Your task to perform on an android device: turn on the 24-hour format for clock Image 0: 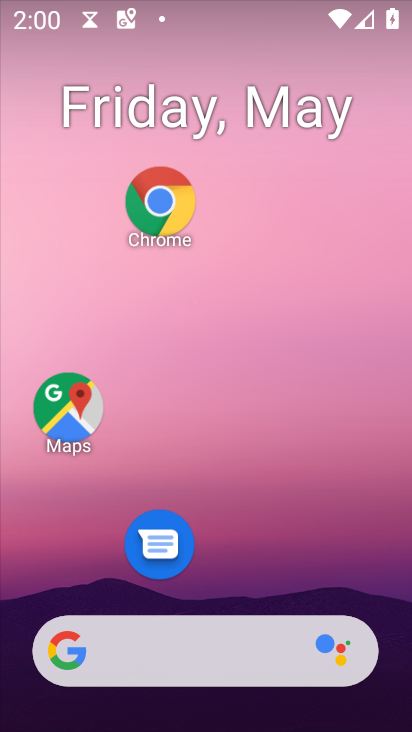
Step 0: drag from (311, 573) to (285, 132)
Your task to perform on an android device: turn on the 24-hour format for clock Image 1: 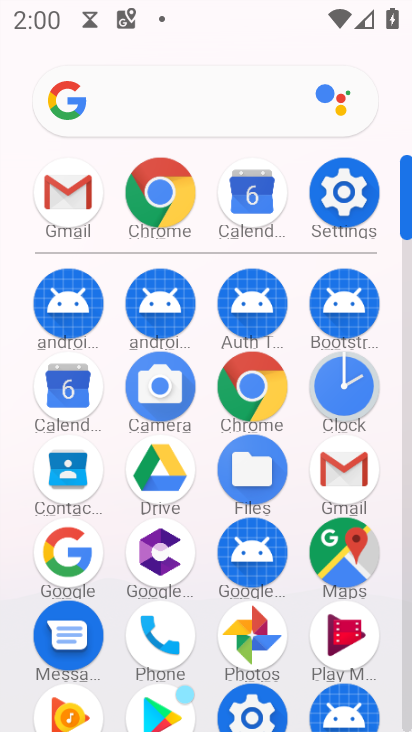
Step 1: click (355, 392)
Your task to perform on an android device: turn on the 24-hour format for clock Image 2: 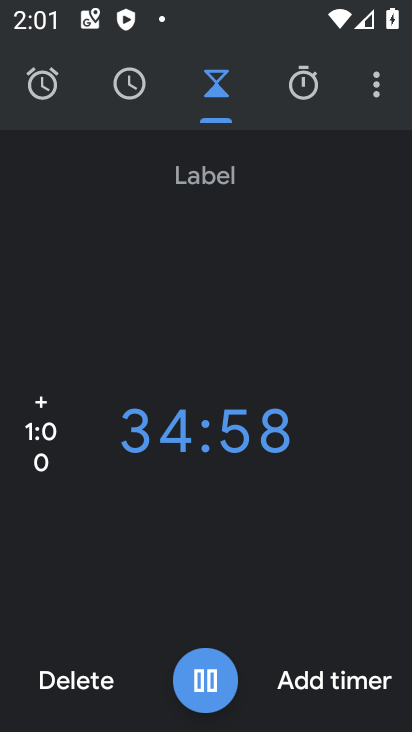
Step 2: click (379, 83)
Your task to perform on an android device: turn on the 24-hour format for clock Image 3: 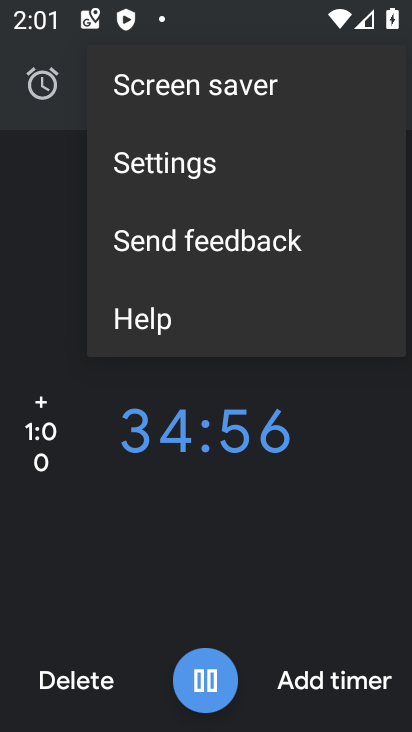
Step 3: click (204, 180)
Your task to perform on an android device: turn on the 24-hour format for clock Image 4: 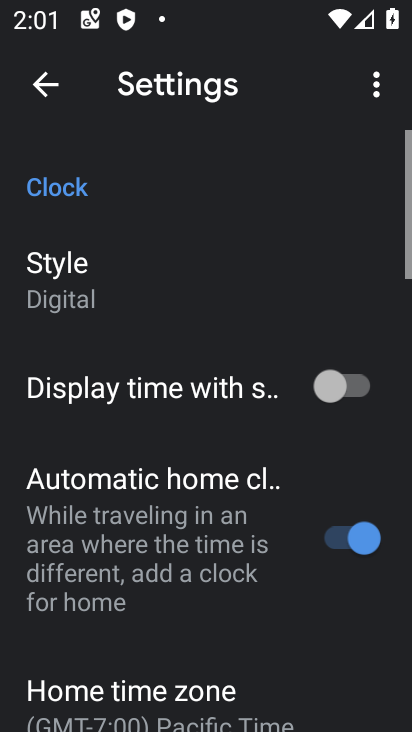
Step 4: drag from (223, 487) to (214, 224)
Your task to perform on an android device: turn on the 24-hour format for clock Image 5: 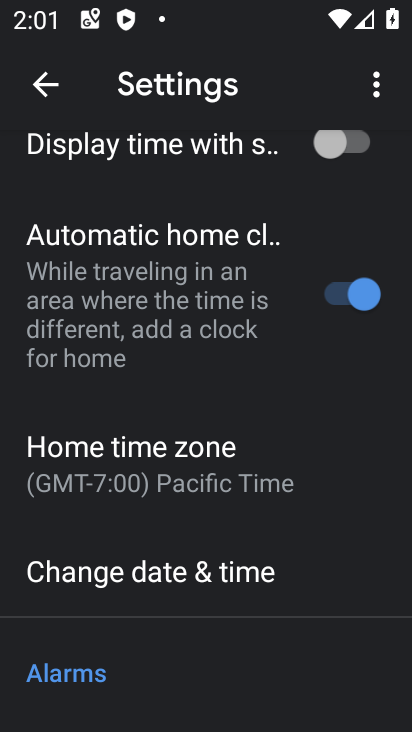
Step 5: click (226, 579)
Your task to perform on an android device: turn on the 24-hour format for clock Image 6: 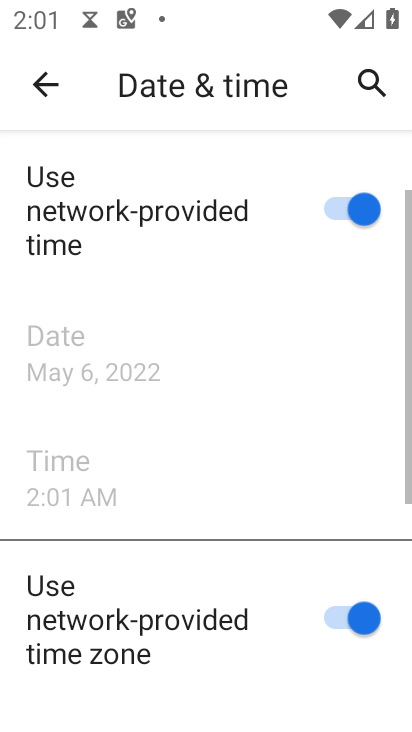
Step 6: drag from (236, 615) to (223, 213)
Your task to perform on an android device: turn on the 24-hour format for clock Image 7: 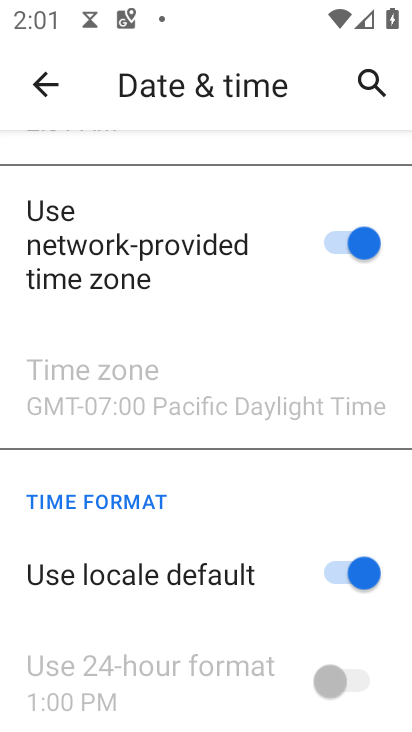
Step 7: drag from (278, 609) to (277, 287)
Your task to perform on an android device: turn on the 24-hour format for clock Image 8: 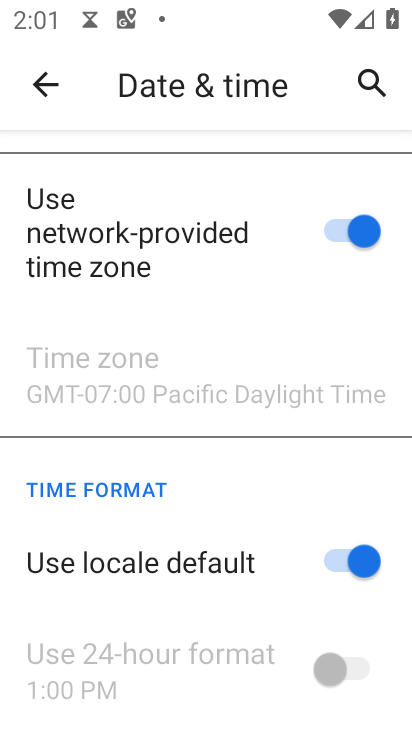
Step 8: click (363, 564)
Your task to perform on an android device: turn on the 24-hour format for clock Image 9: 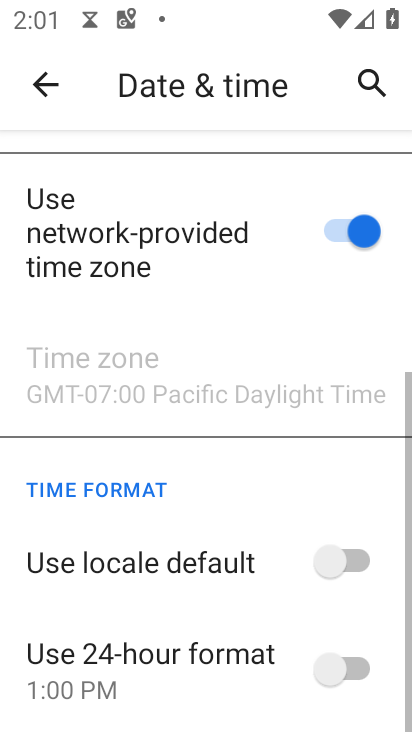
Step 9: click (339, 674)
Your task to perform on an android device: turn on the 24-hour format for clock Image 10: 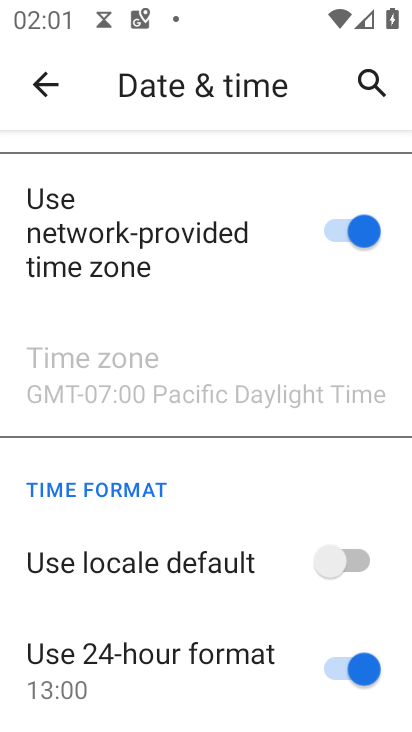
Step 10: task complete